Your task to perform on an android device: Check the news Image 0: 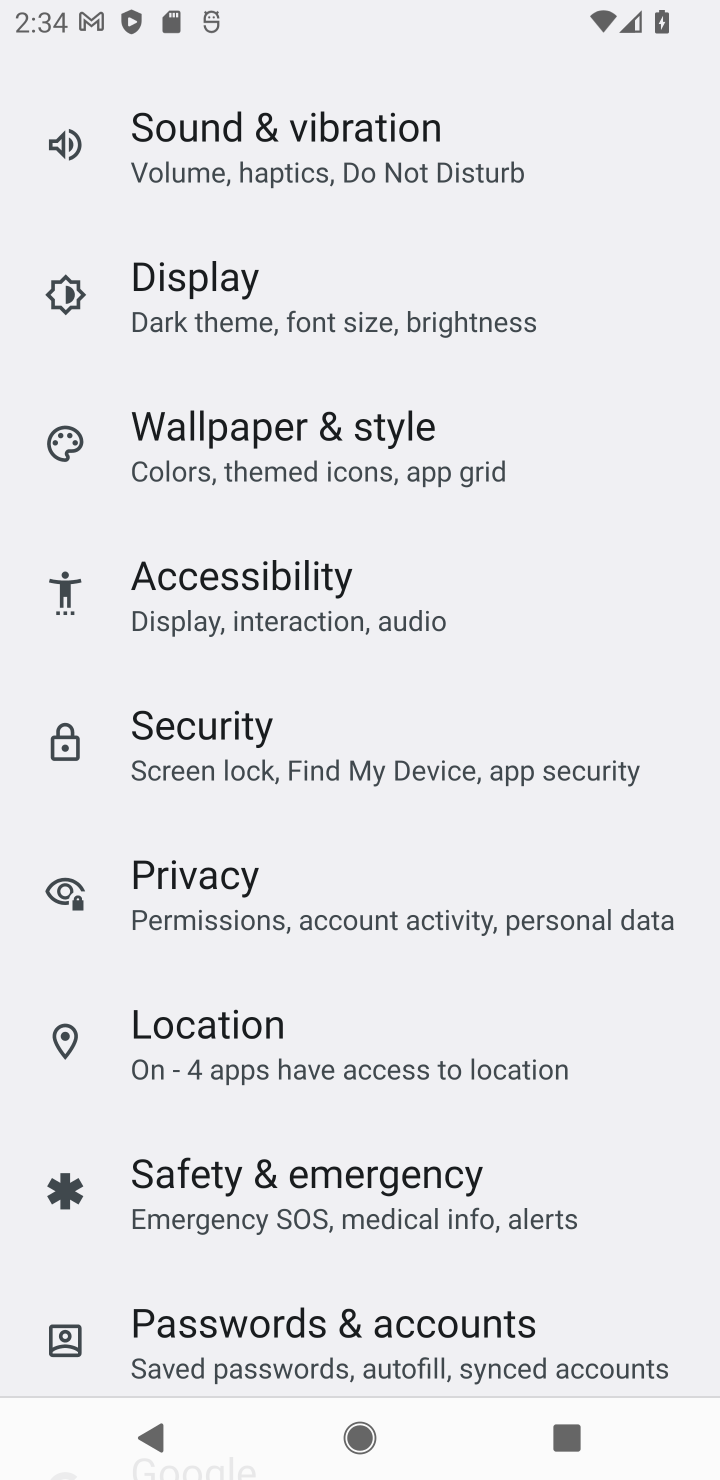
Step 0: press home button
Your task to perform on an android device: Check the news Image 1: 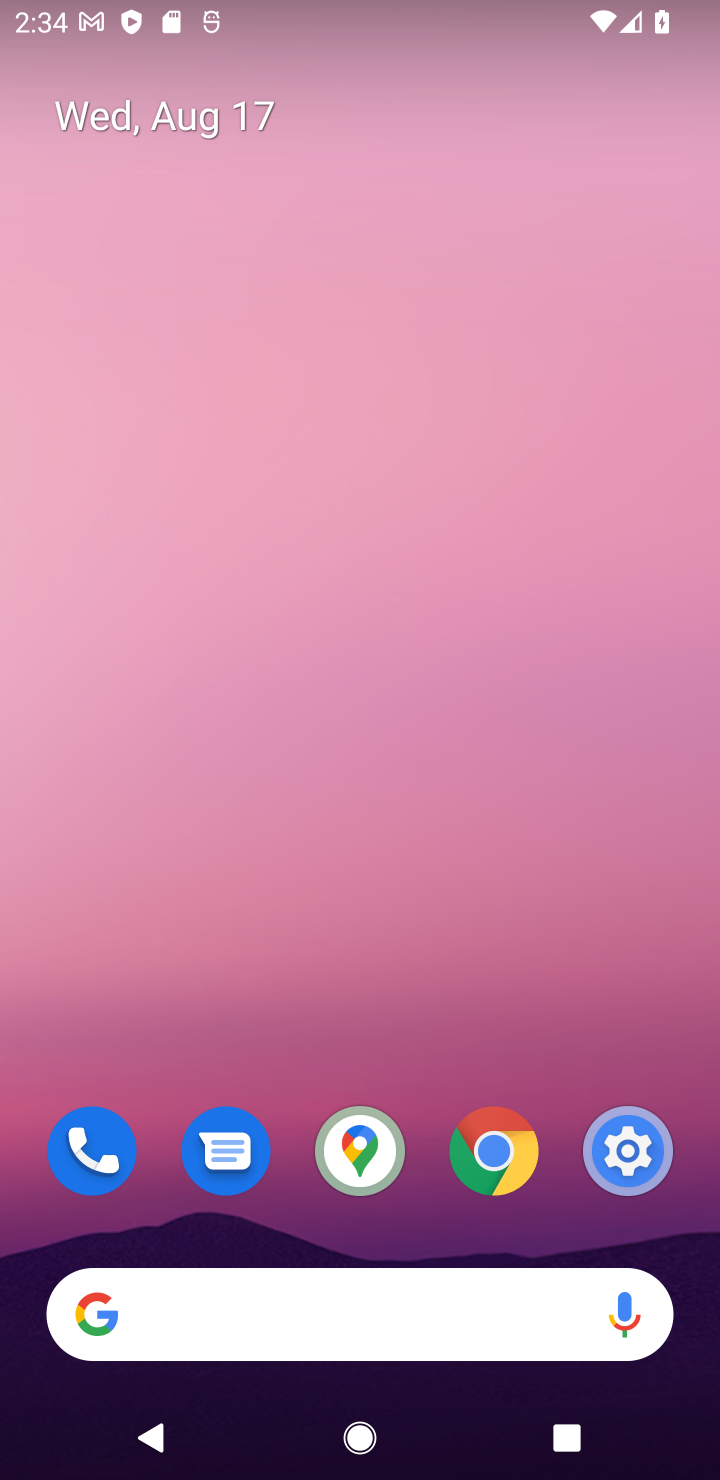
Step 1: drag from (351, 1237) to (429, 239)
Your task to perform on an android device: Check the news Image 2: 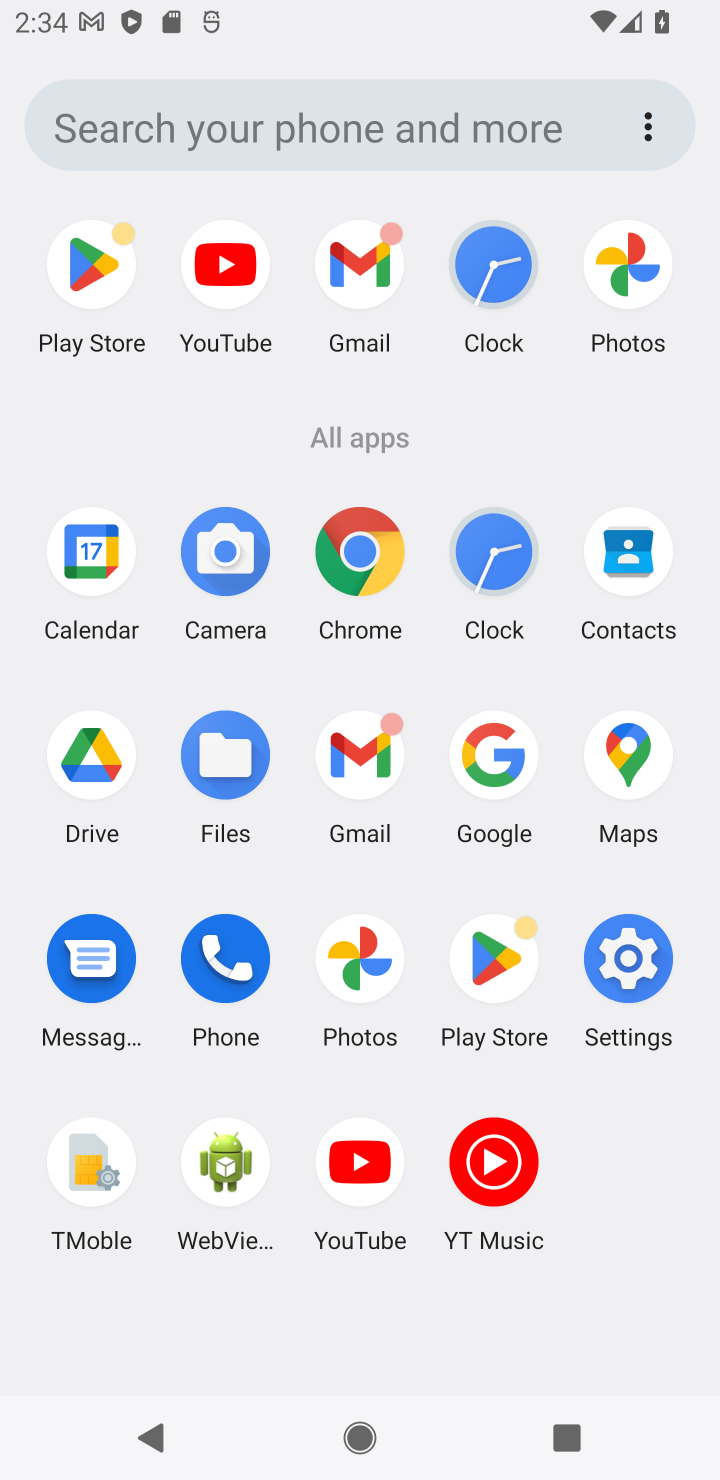
Step 2: click (354, 542)
Your task to perform on an android device: Check the news Image 3: 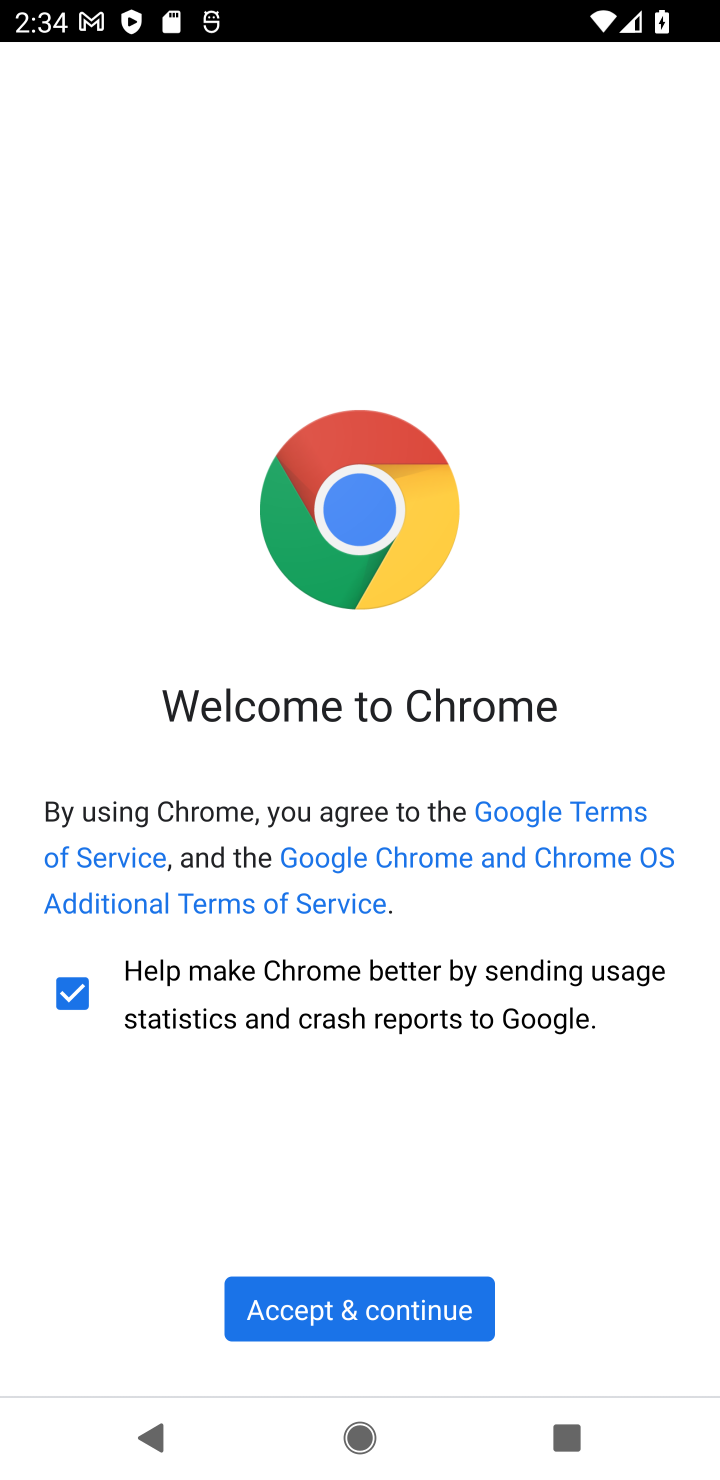
Step 3: click (344, 1295)
Your task to perform on an android device: Check the news Image 4: 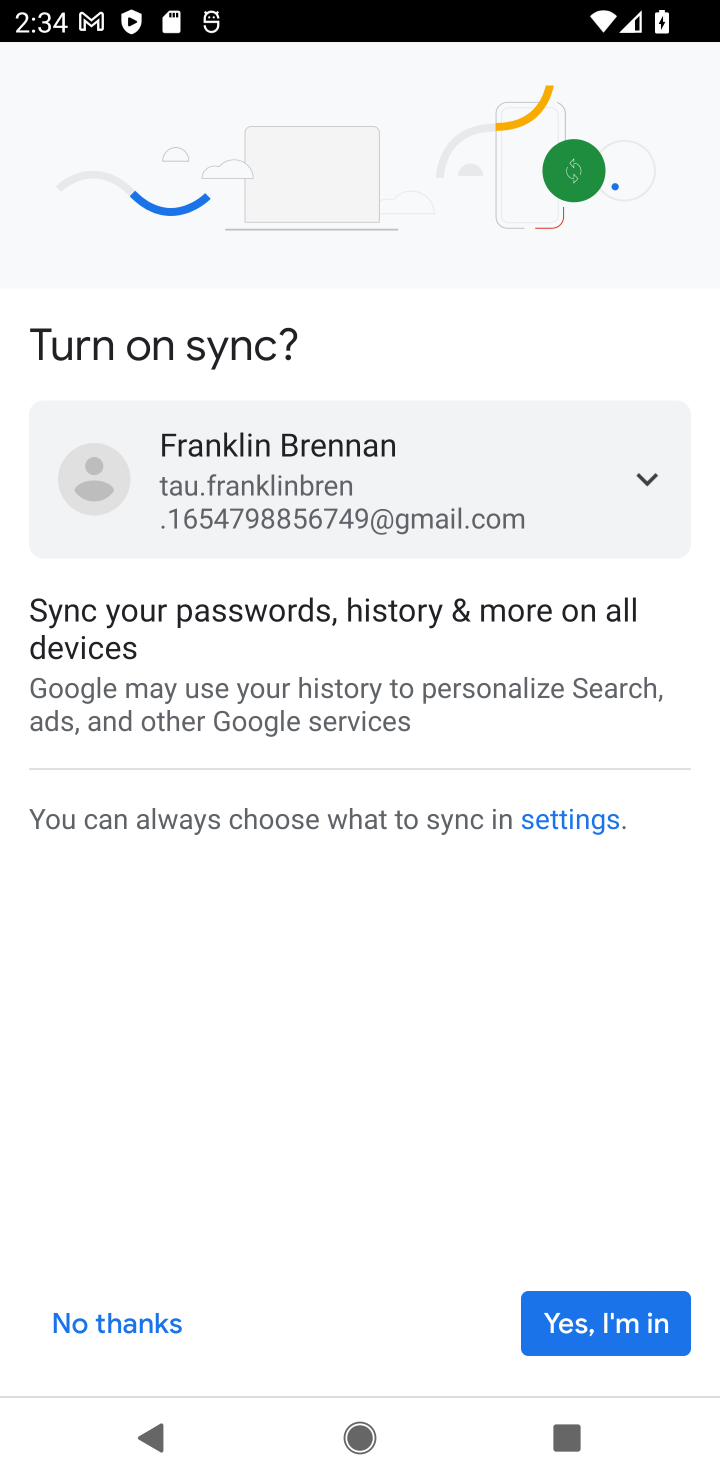
Step 4: click (636, 1322)
Your task to perform on an android device: Check the news Image 5: 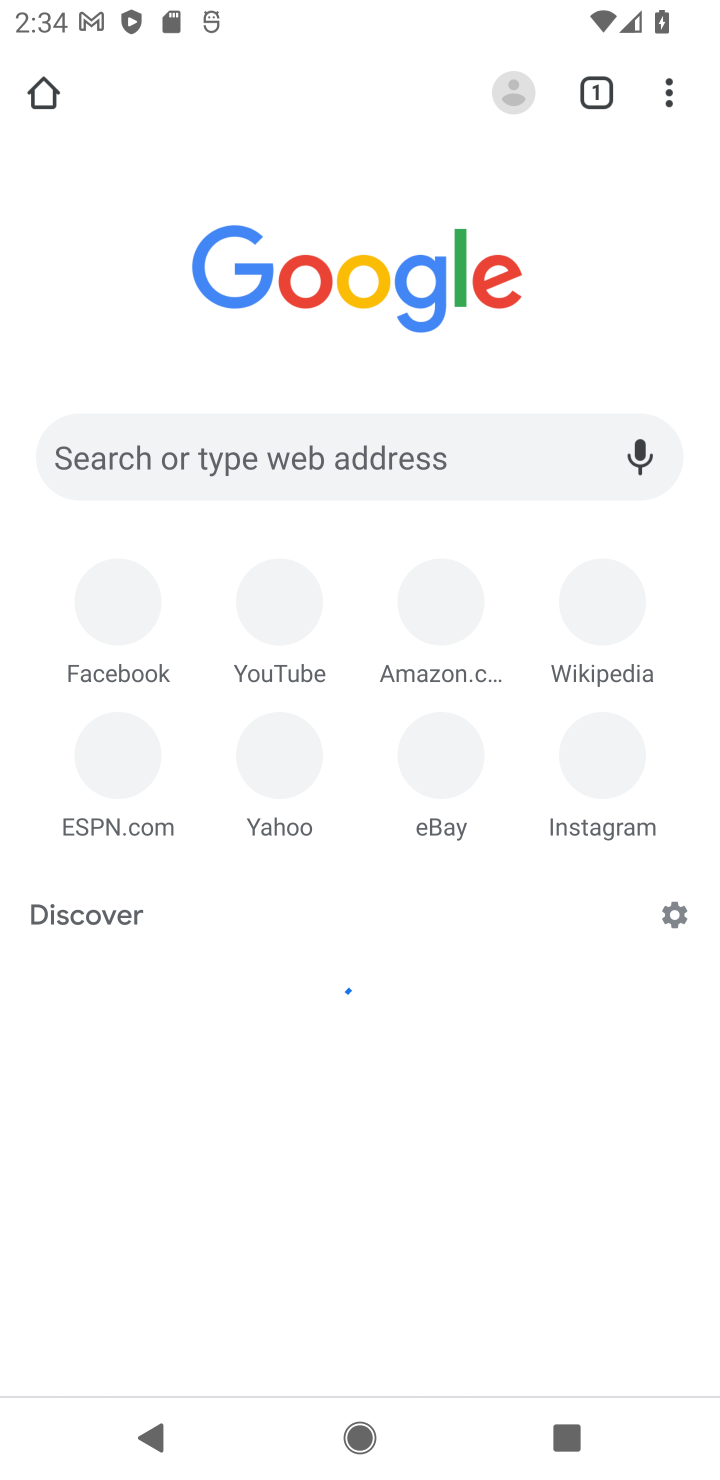
Step 5: click (593, 1308)
Your task to perform on an android device: Check the news Image 6: 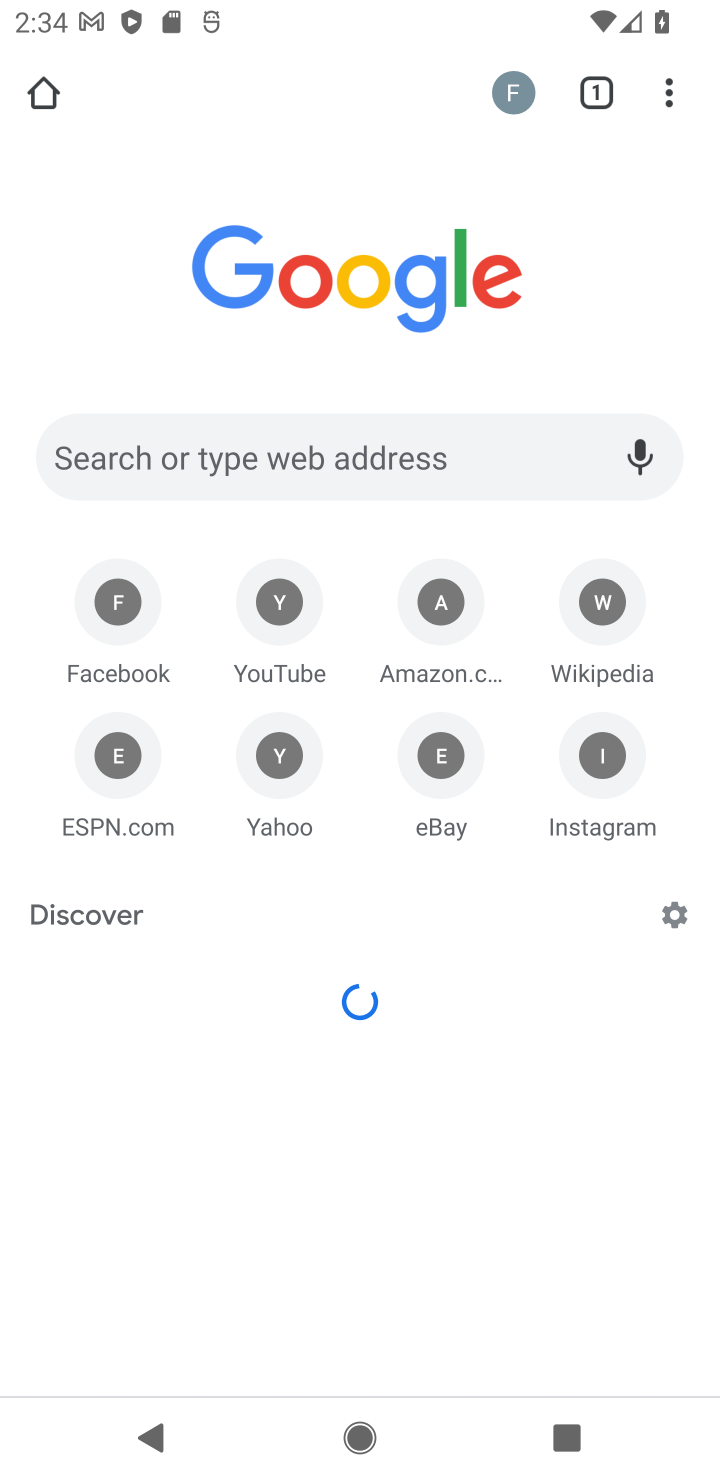
Step 6: click (290, 446)
Your task to perform on an android device: Check the news Image 7: 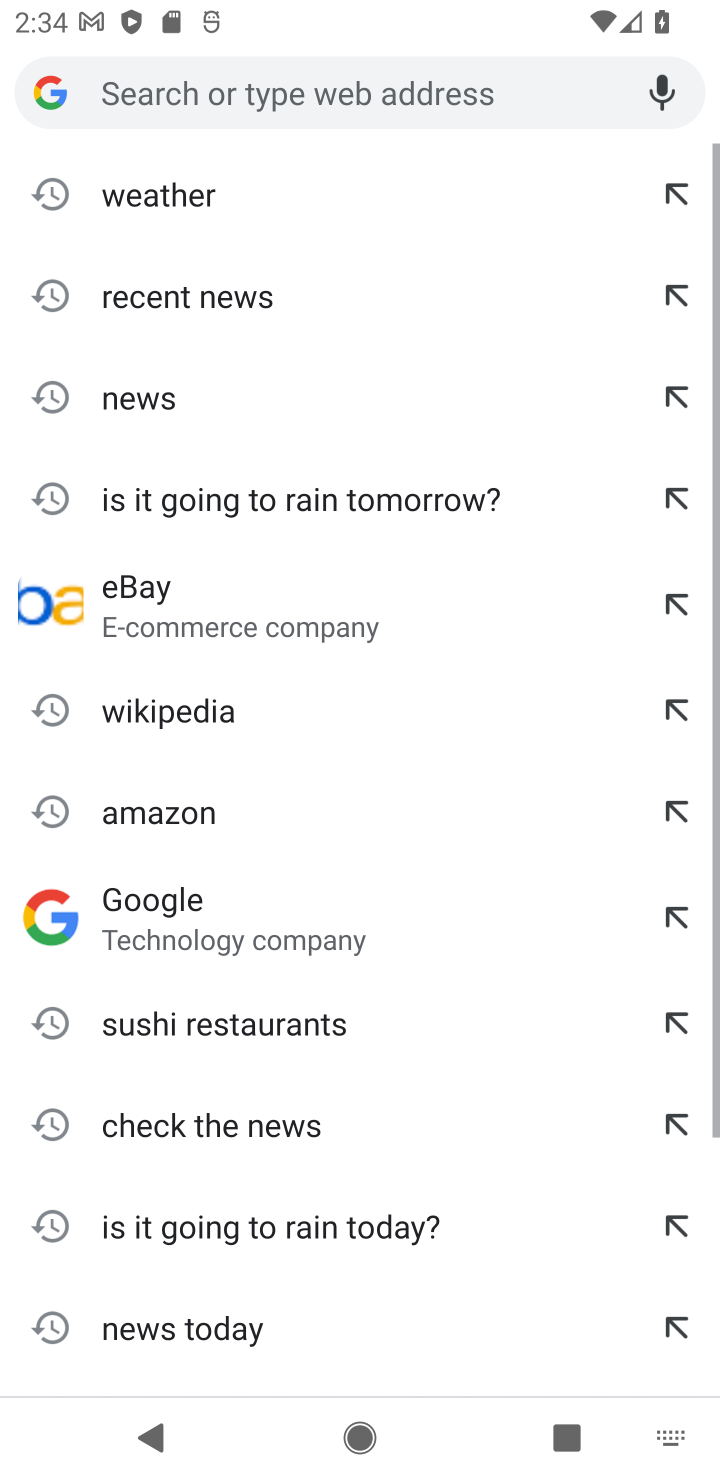
Step 7: type "Check the news "
Your task to perform on an android device: Check the news Image 8: 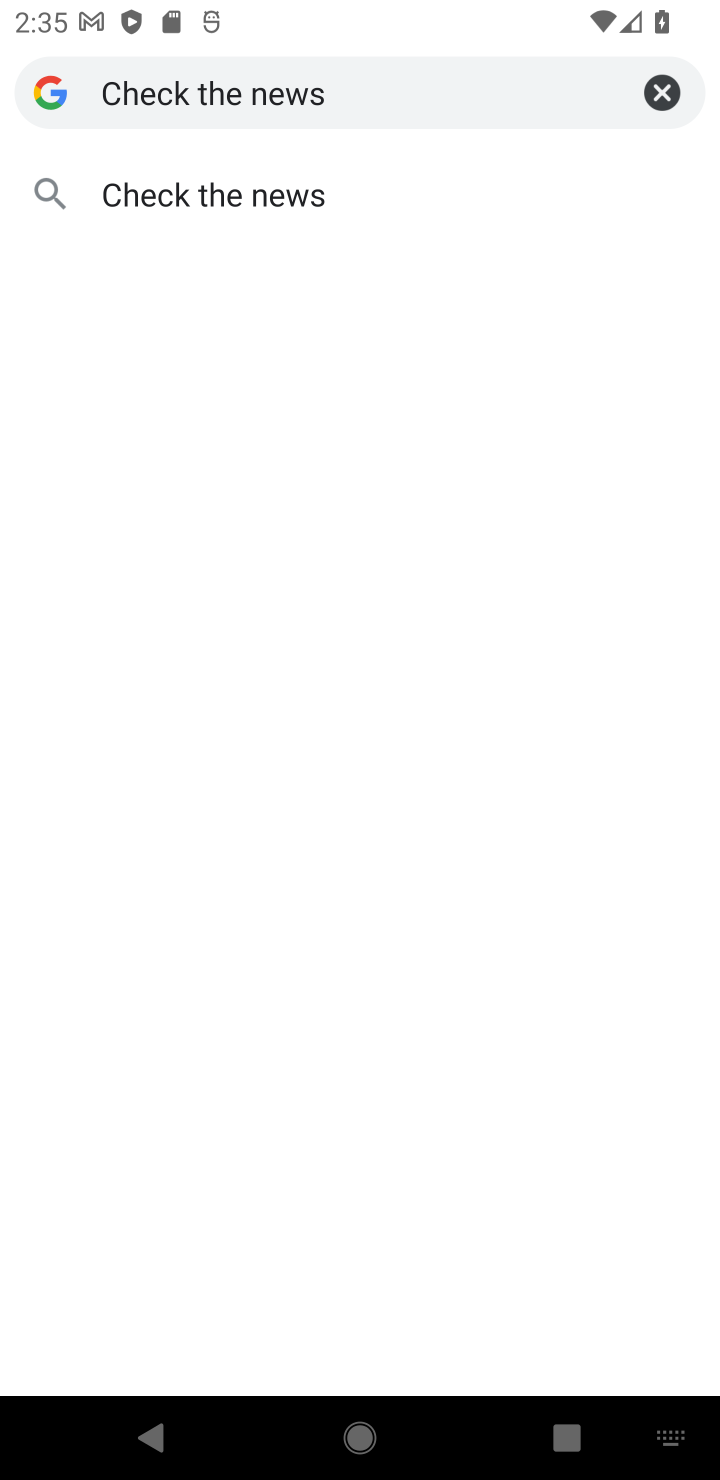
Step 8: click (272, 186)
Your task to perform on an android device: Check the news Image 9: 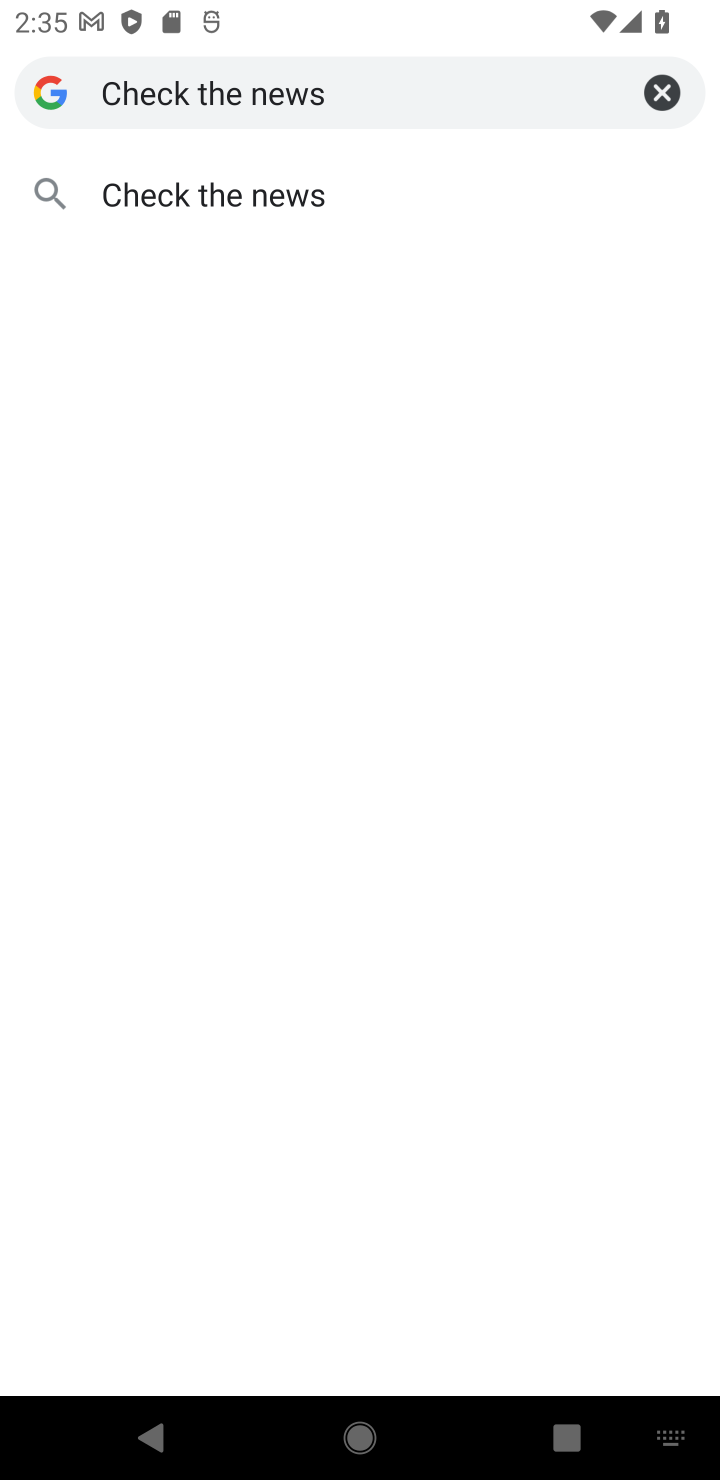
Step 9: click (292, 184)
Your task to perform on an android device: Check the news Image 10: 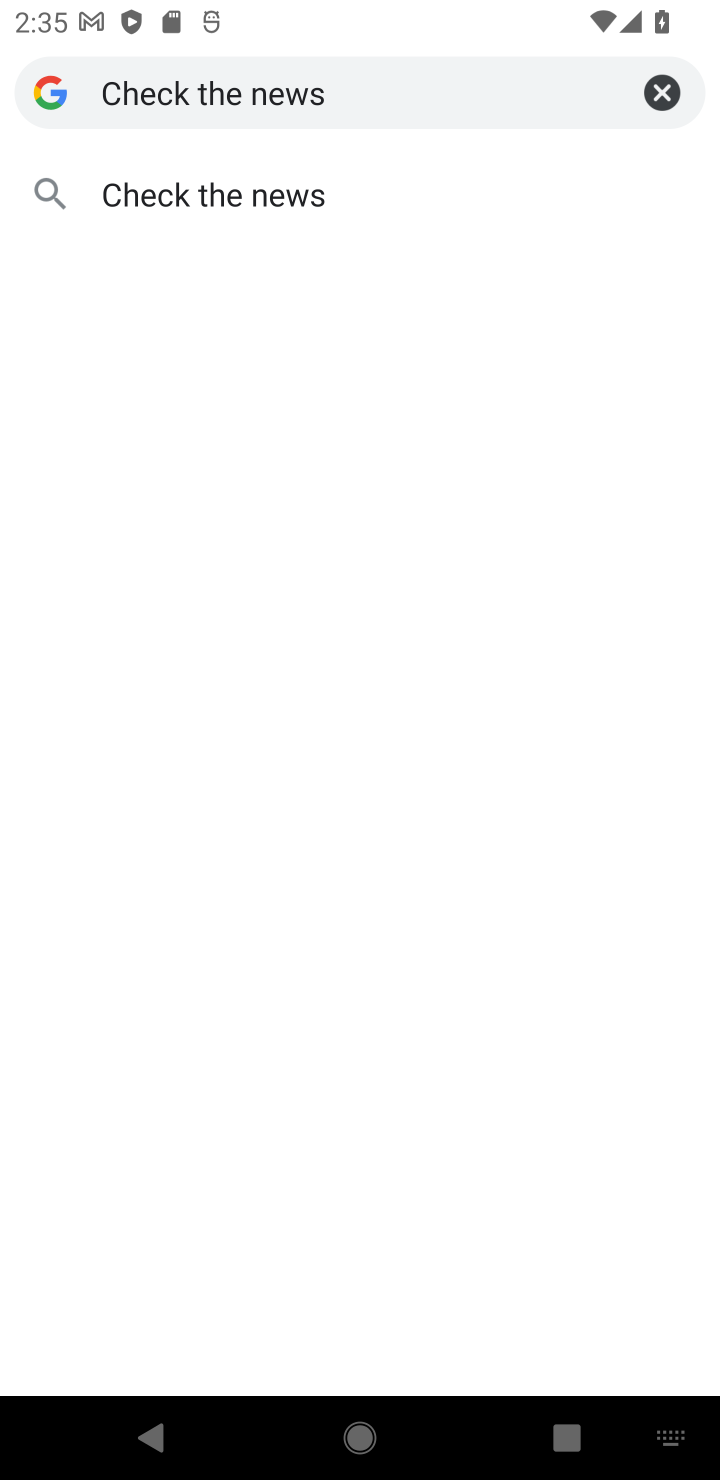
Step 10: click (288, 218)
Your task to perform on an android device: Check the news Image 11: 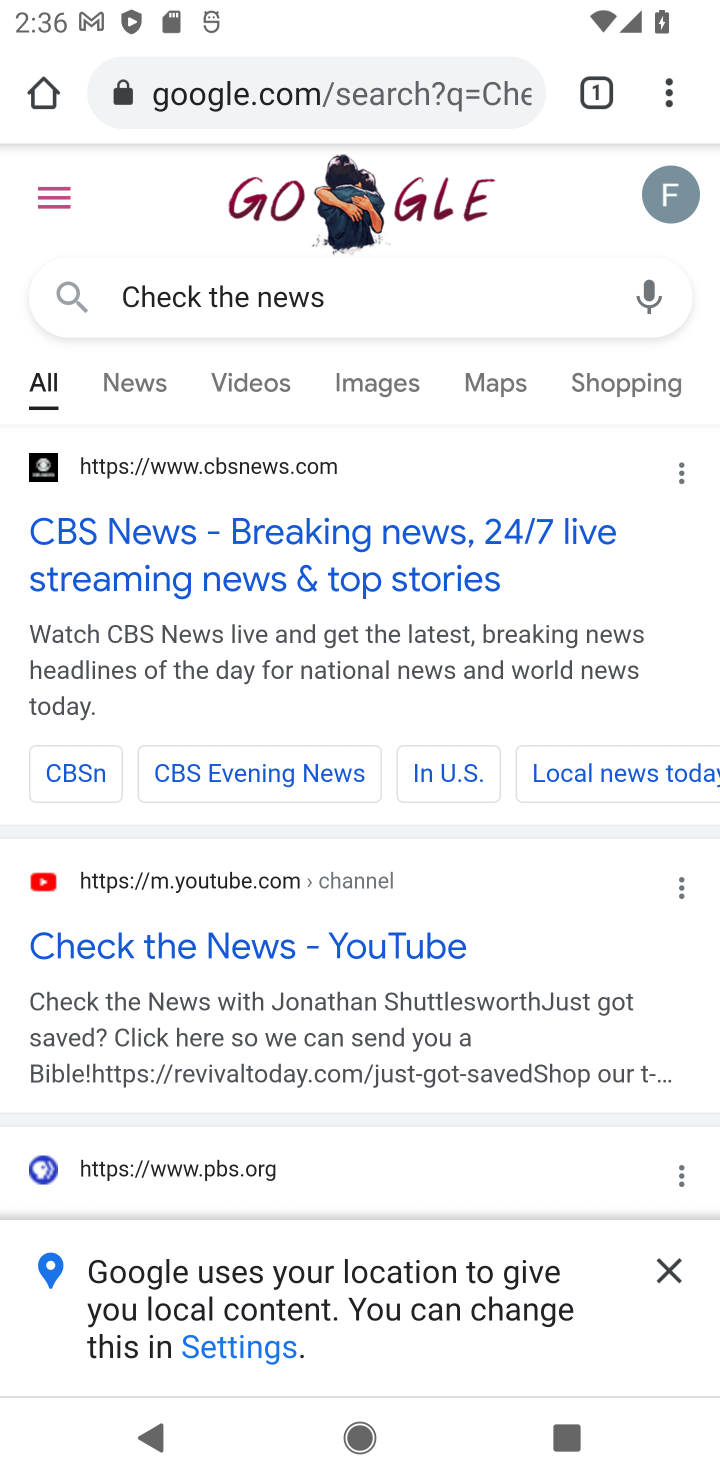
Step 11: task complete